Your task to perform on an android device: Open the web browser Image 0: 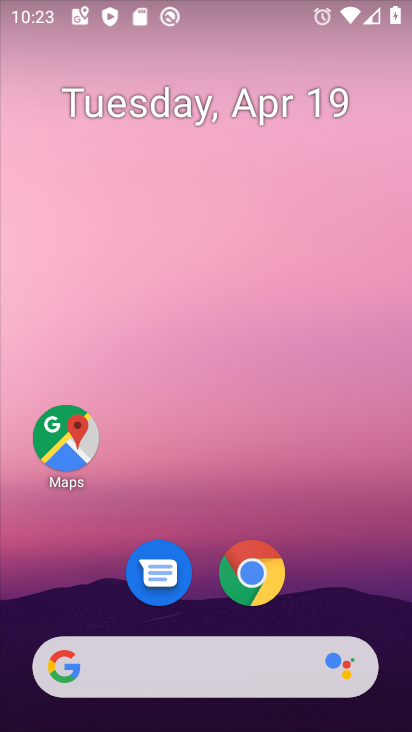
Step 0: click (259, 579)
Your task to perform on an android device: Open the web browser Image 1: 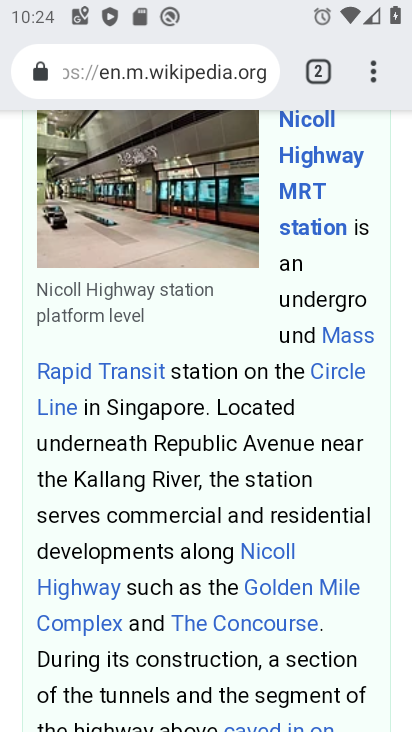
Step 1: task complete